Your task to perform on an android device: Go to display settings Image 0: 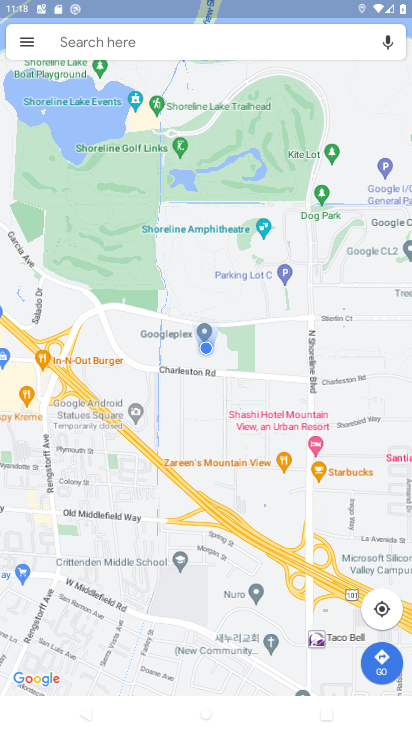
Step 0: press home button
Your task to perform on an android device: Go to display settings Image 1: 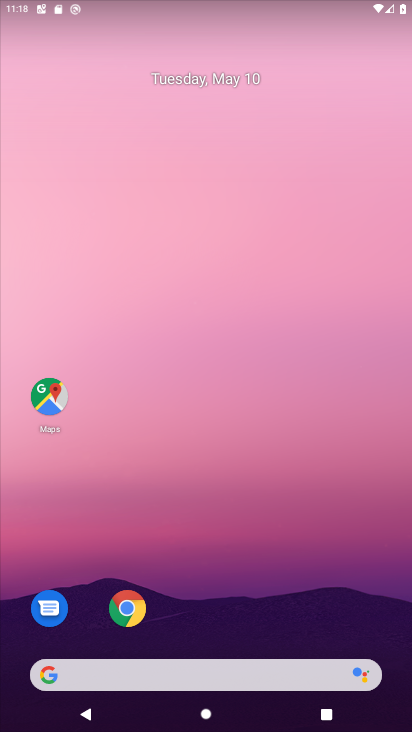
Step 1: drag from (217, 664) to (293, 4)
Your task to perform on an android device: Go to display settings Image 2: 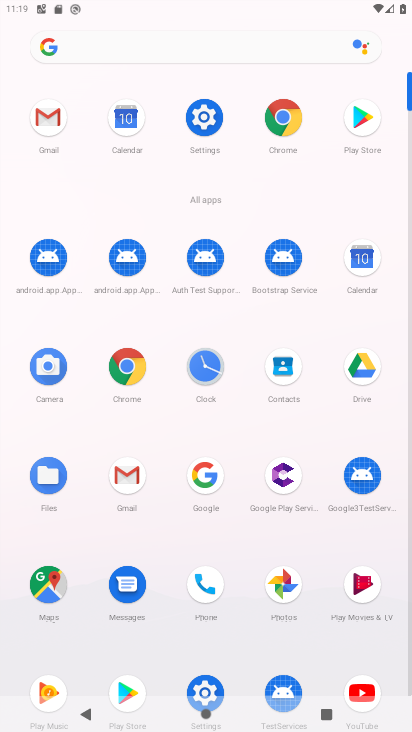
Step 2: click (202, 114)
Your task to perform on an android device: Go to display settings Image 3: 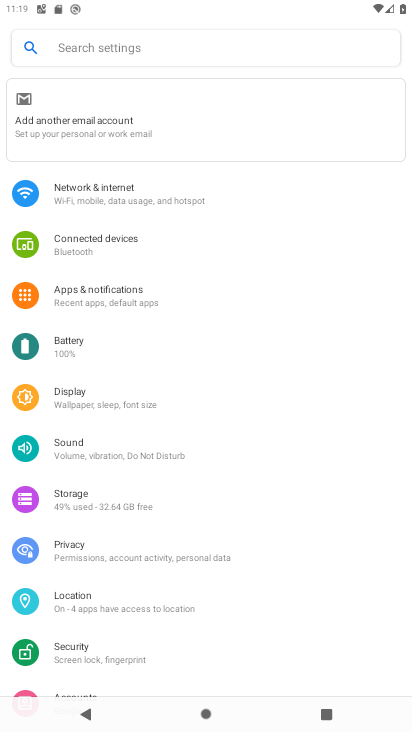
Step 3: click (113, 395)
Your task to perform on an android device: Go to display settings Image 4: 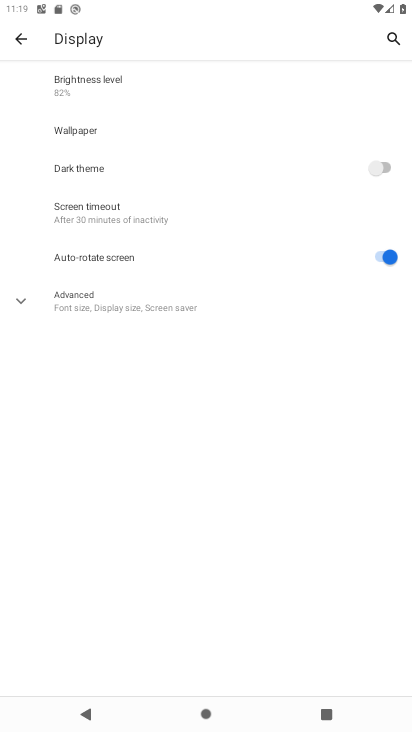
Step 4: click (96, 305)
Your task to perform on an android device: Go to display settings Image 5: 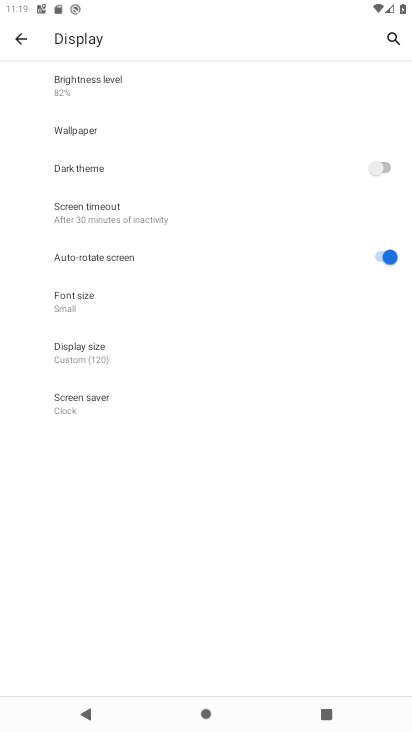
Step 5: click (96, 305)
Your task to perform on an android device: Go to display settings Image 6: 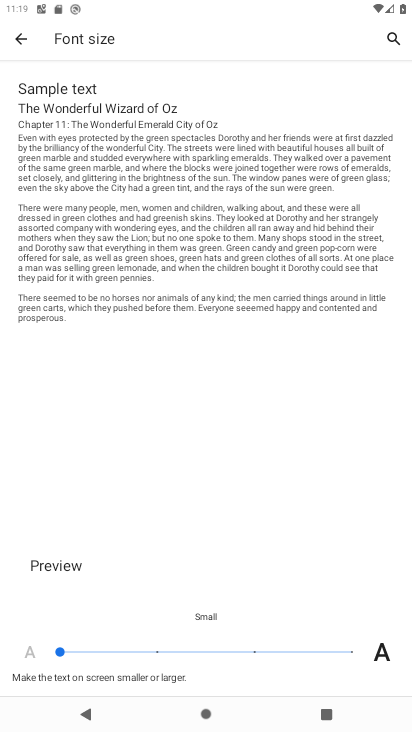
Step 6: task complete